Your task to perform on an android device: install app "Adobe Acrobat Reader" Image 0: 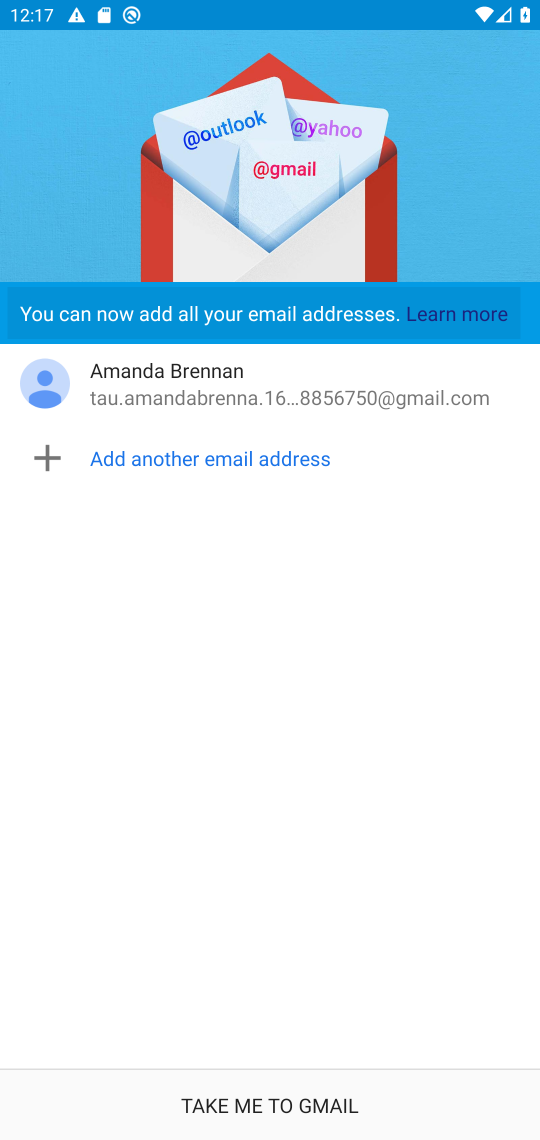
Step 0: press home button
Your task to perform on an android device: install app "Adobe Acrobat Reader" Image 1: 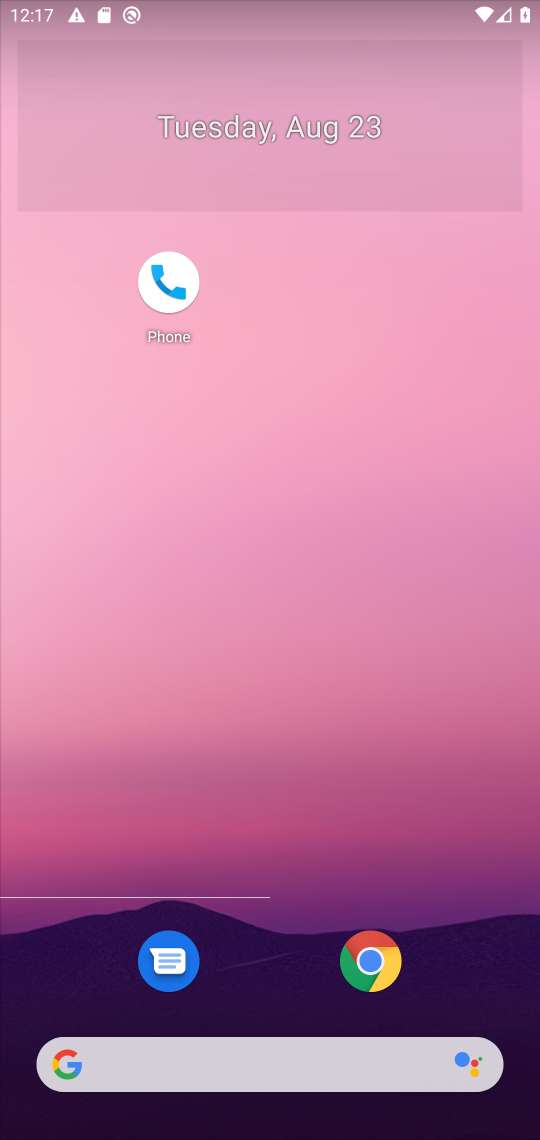
Step 1: drag from (272, 1005) to (299, 154)
Your task to perform on an android device: install app "Adobe Acrobat Reader" Image 2: 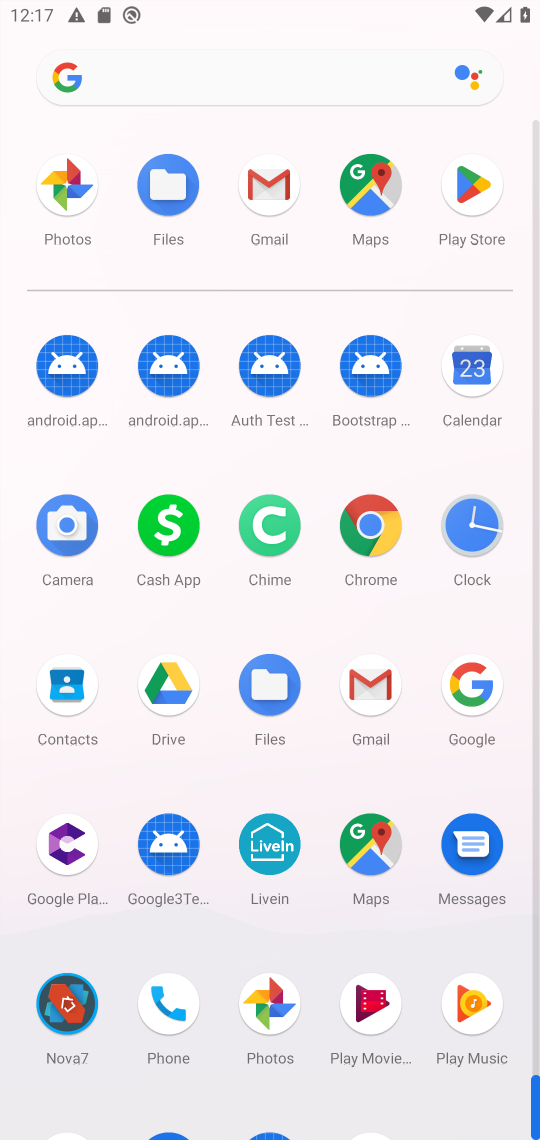
Step 2: click (459, 226)
Your task to perform on an android device: install app "Adobe Acrobat Reader" Image 3: 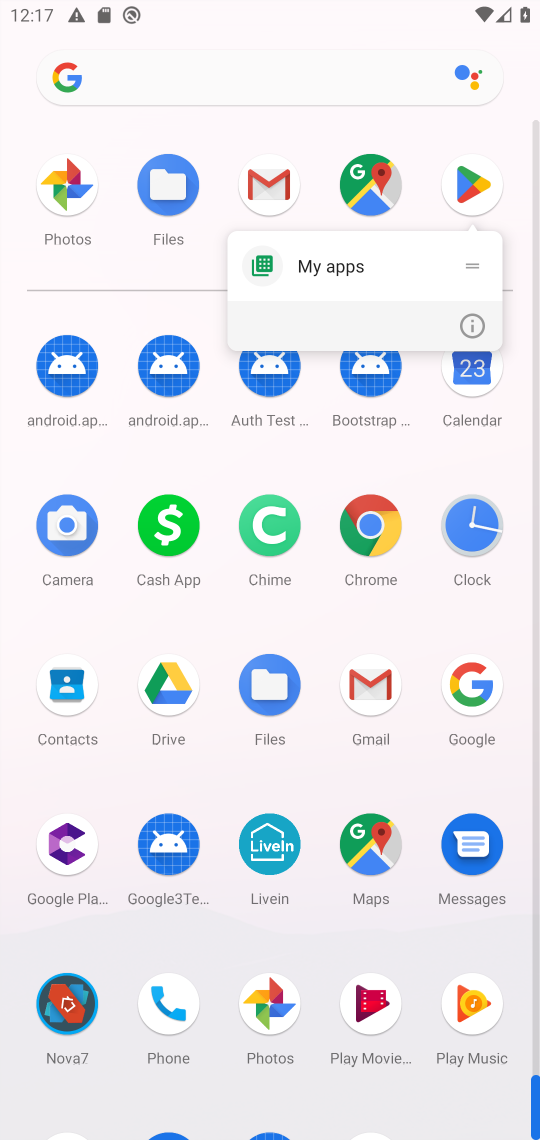
Step 3: click (470, 204)
Your task to perform on an android device: install app "Adobe Acrobat Reader" Image 4: 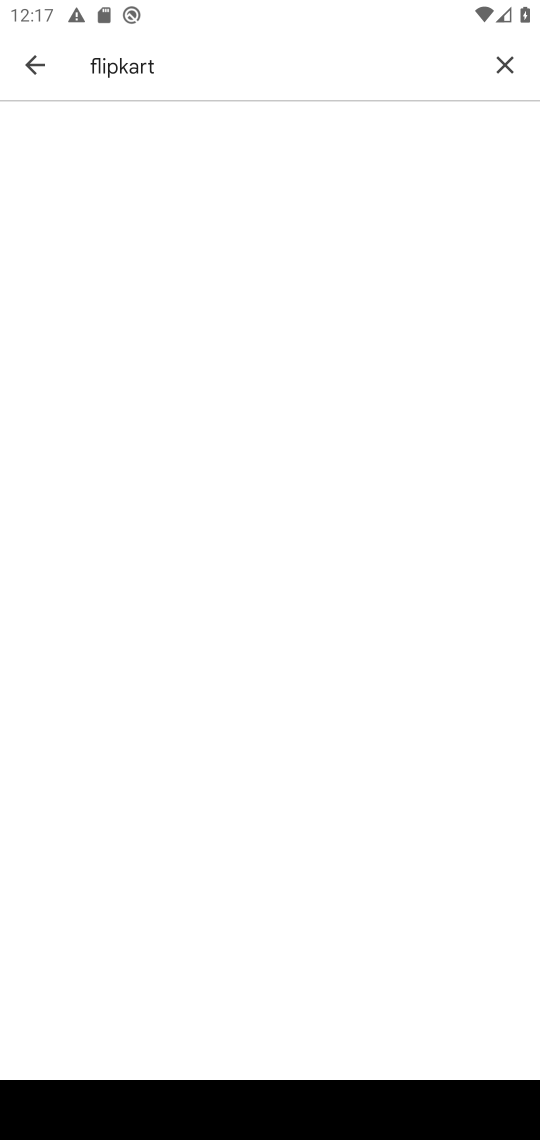
Step 4: click (507, 66)
Your task to perform on an android device: install app "Adobe Acrobat Reader" Image 5: 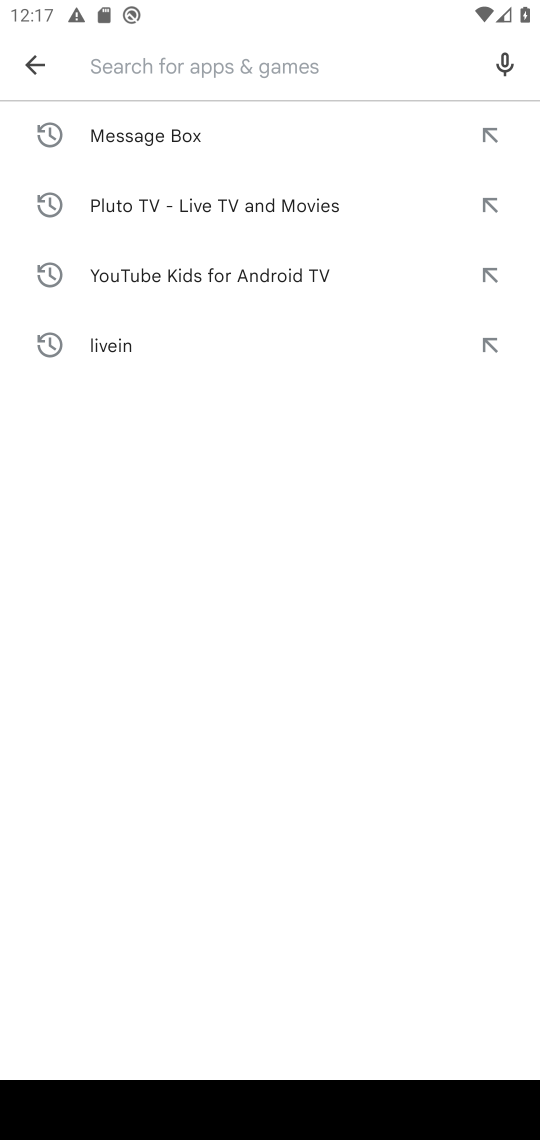
Step 5: type "adobe acrobat"
Your task to perform on an android device: install app "Adobe Acrobat Reader" Image 6: 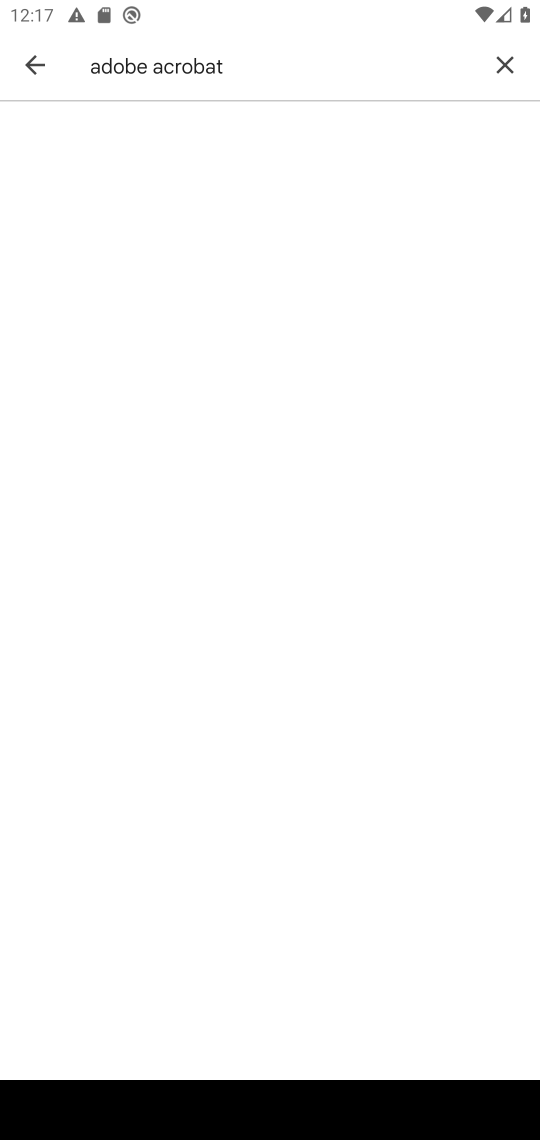
Step 6: task complete